Your task to perform on an android device: open chrome privacy settings Image 0: 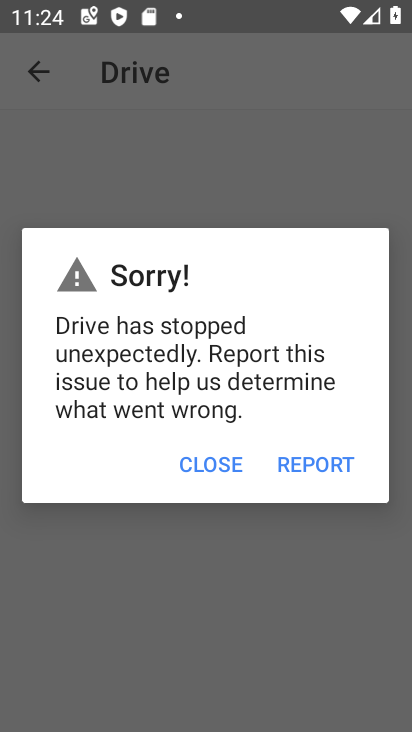
Step 0: press home button
Your task to perform on an android device: open chrome privacy settings Image 1: 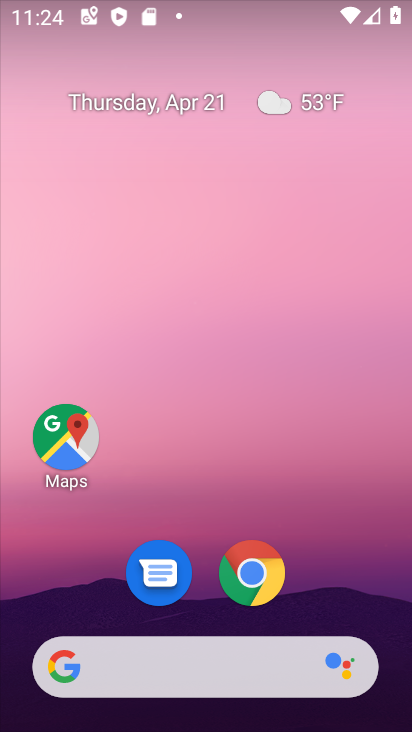
Step 1: drag from (319, 513) to (326, 106)
Your task to perform on an android device: open chrome privacy settings Image 2: 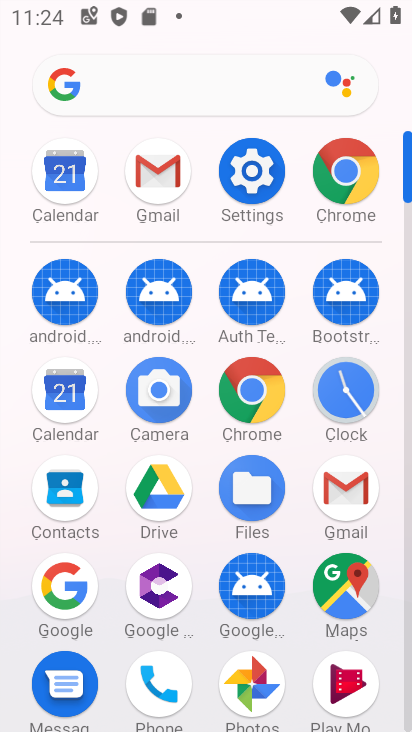
Step 2: click (251, 386)
Your task to perform on an android device: open chrome privacy settings Image 3: 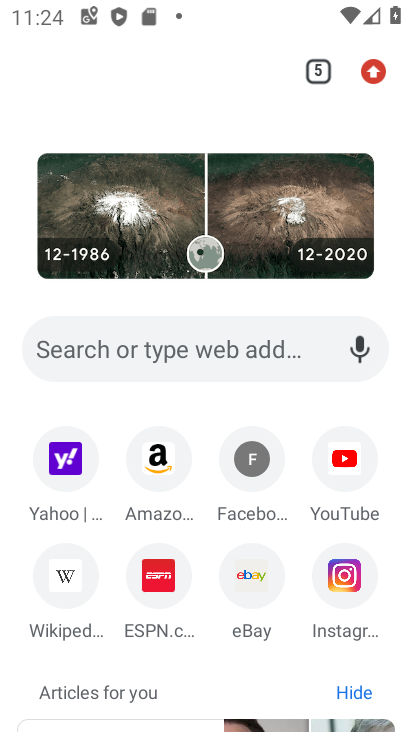
Step 3: drag from (370, 70) to (132, 567)
Your task to perform on an android device: open chrome privacy settings Image 4: 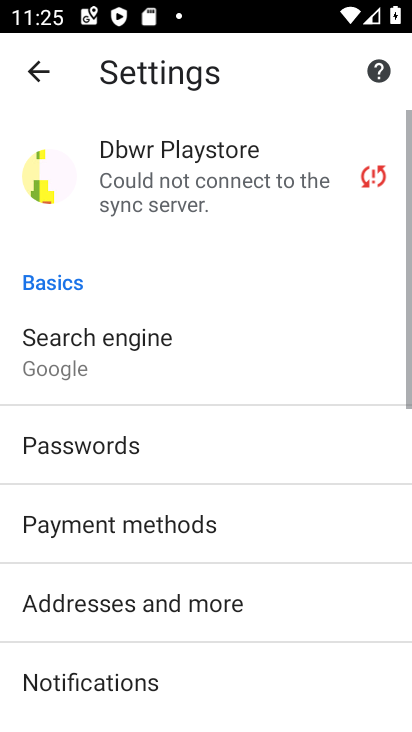
Step 4: drag from (311, 652) to (305, 237)
Your task to perform on an android device: open chrome privacy settings Image 5: 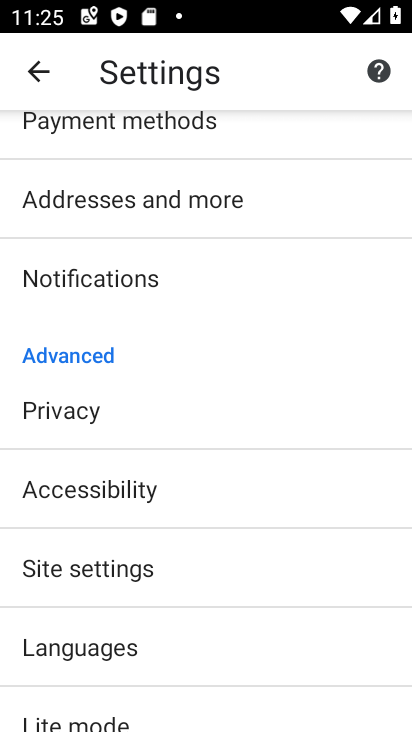
Step 5: click (83, 405)
Your task to perform on an android device: open chrome privacy settings Image 6: 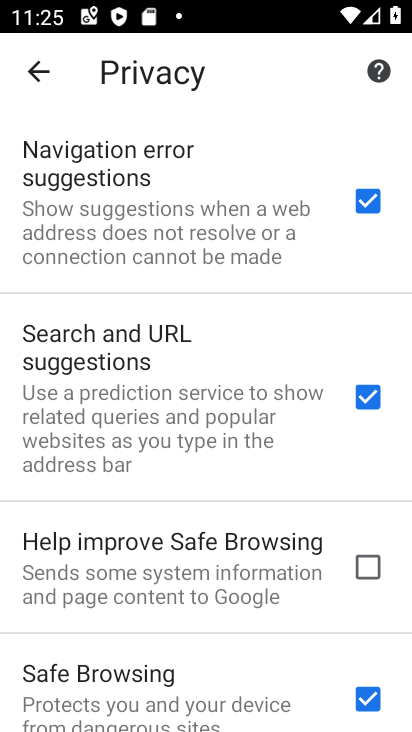
Step 6: task complete